Your task to perform on an android device: remove spam from my inbox in the gmail app Image 0: 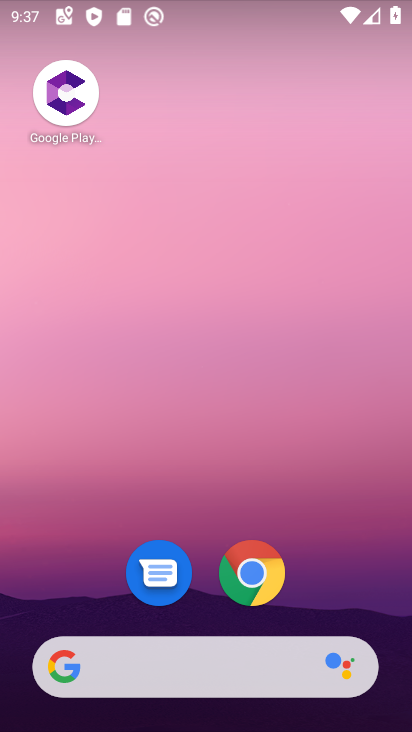
Step 0: click (43, 324)
Your task to perform on an android device: remove spam from my inbox in the gmail app Image 1: 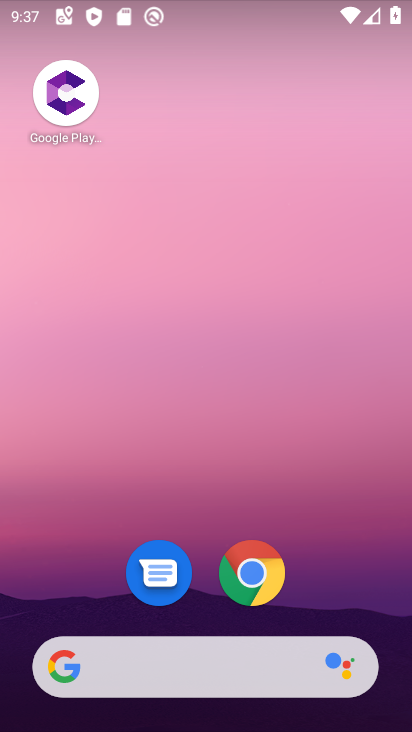
Step 1: drag from (88, 549) to (202, 88)
Your task to perform on an android device: remove spam from my inbox in the gmail app Image 2: 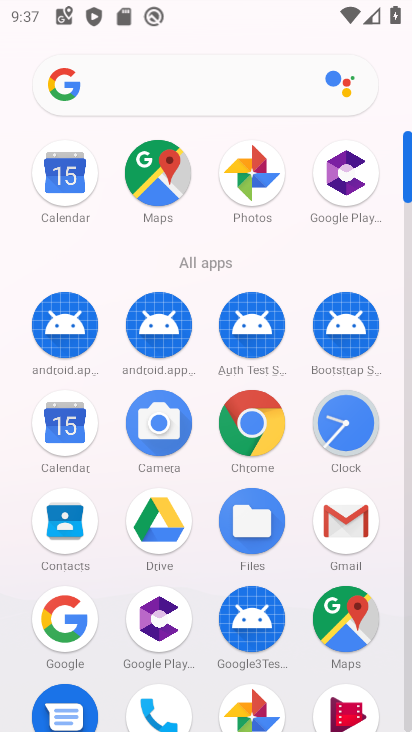
Step 2: click (366, 551)
Your task to perform on an android device: remove spam from my inbox in the gmail app Image 3: 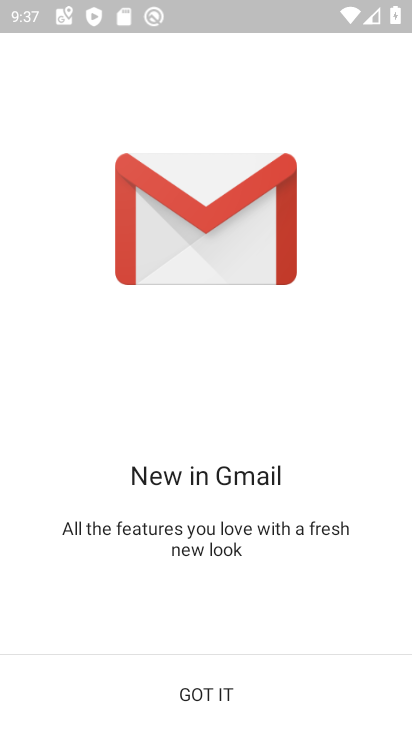
Step 3: click (219, 709)
Your task to perform on an android device: remove spam from my inbox in the gmail app Image 4: 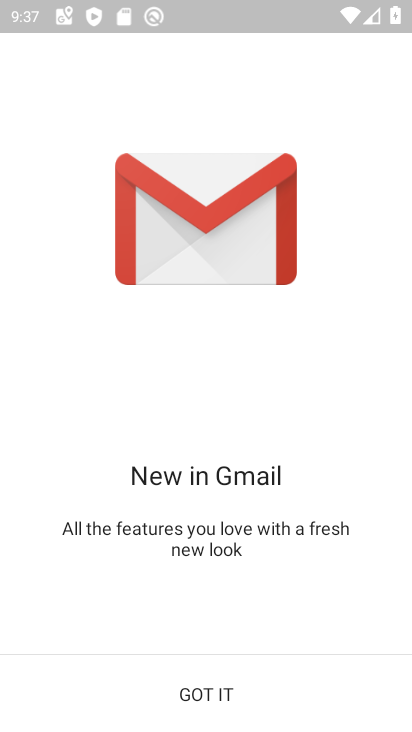
Step 4: drag from (219, 709) to (203, 678)
Your task to perform on an android device: remove spam from my inbox in the gmail app Image 5: 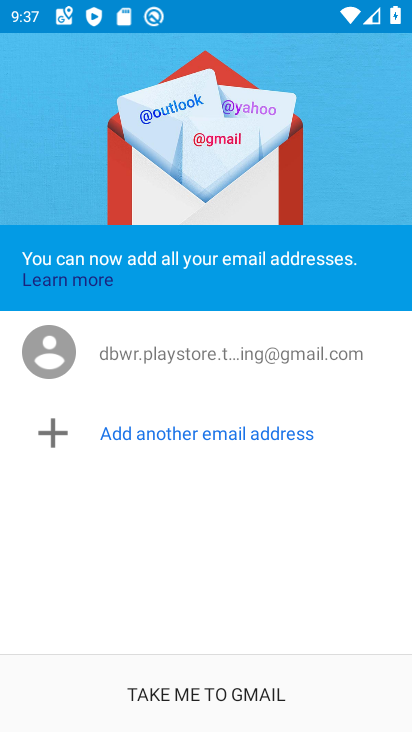
Step 5: click (203, 678)
Your task to perform on an android device: remove spam from my inbox in the gmail app Image 6: 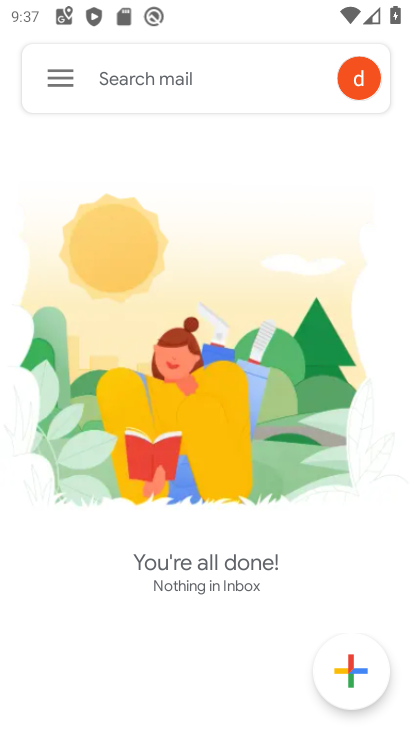
Step 6: task complete